Your task to perform on an android device: turn off location Image 0: 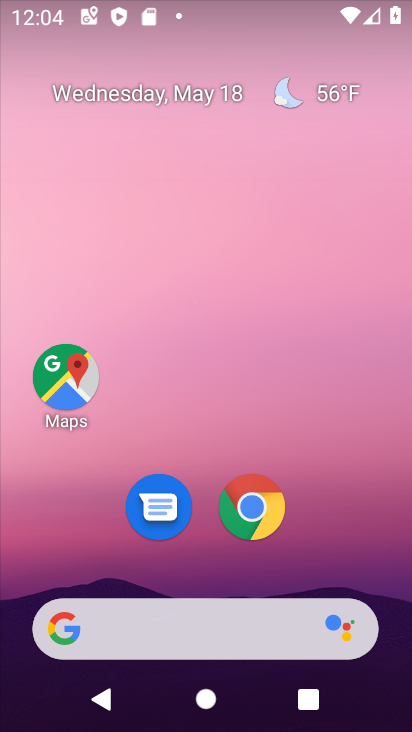
Step 0: drag from (329, 529) to (295, 216)
Your task to perform on an android device: turn off location Image 1: 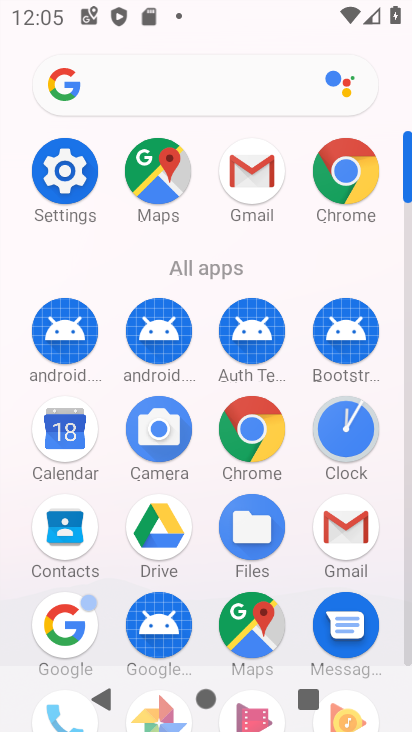
Step 1: click (72, 167)
Your task to perform on an android device: turn off location Image 2: 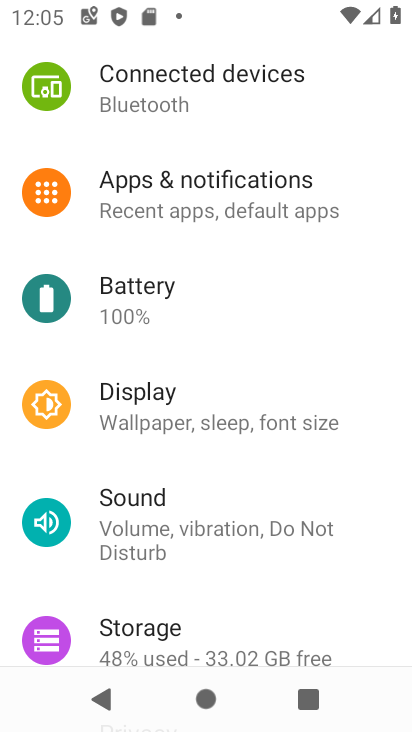
Step 2: drag from (254, 602) to (255, 287)
Your task to perform on an android device: turn off location Image 3: 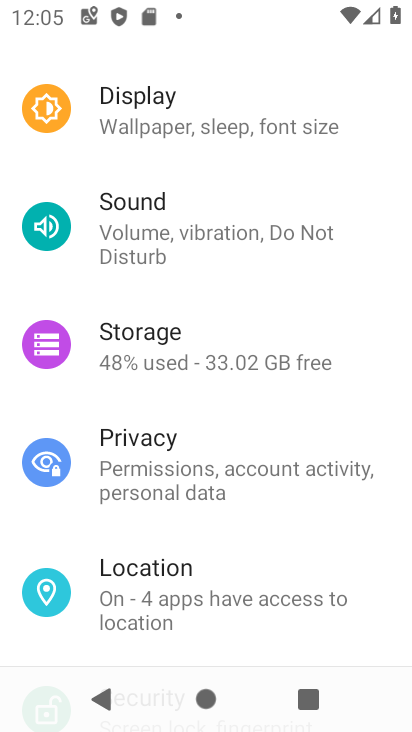
Step 3: click (285, 585)
Your task to perform on an android device: turn off location Image 4: 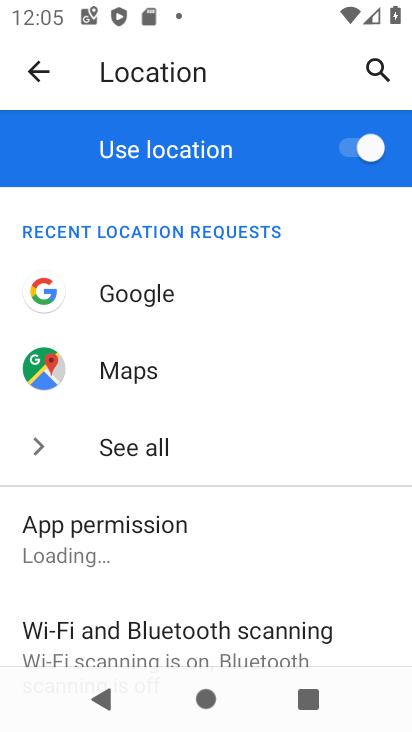
Step 4: click (366, 141)
Your task to perform on an android device: turn off location Image 5: 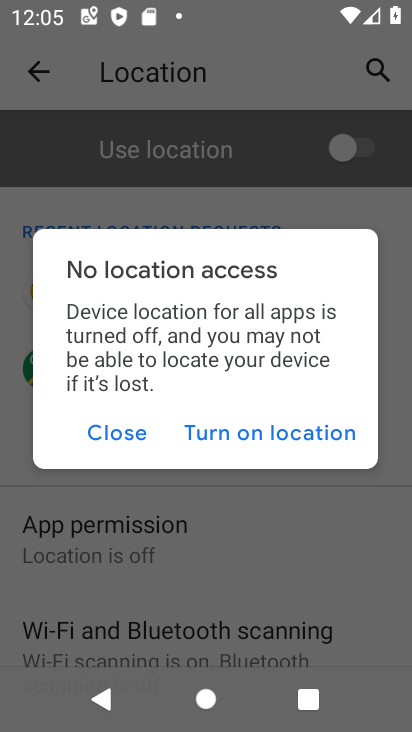
Step 5: task complete